Your task to perform on an android device: Open Google Chrome and click the shortcut for Amazon.com Image 0: 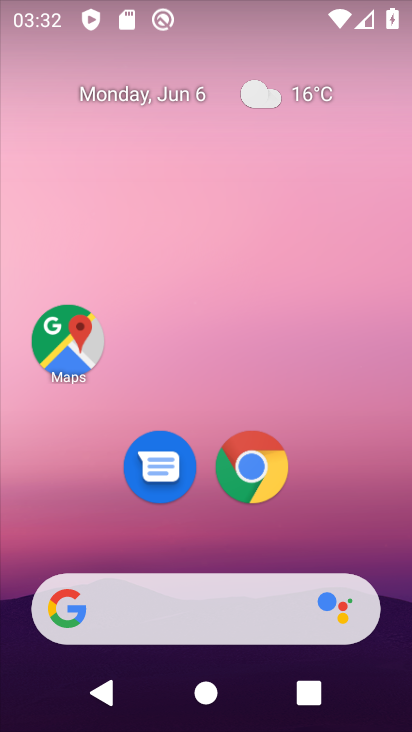
Step 0: press home button
Your task to perform on an android device: Open Google Chrome and click the shortcut for Amazon.com Image 1: 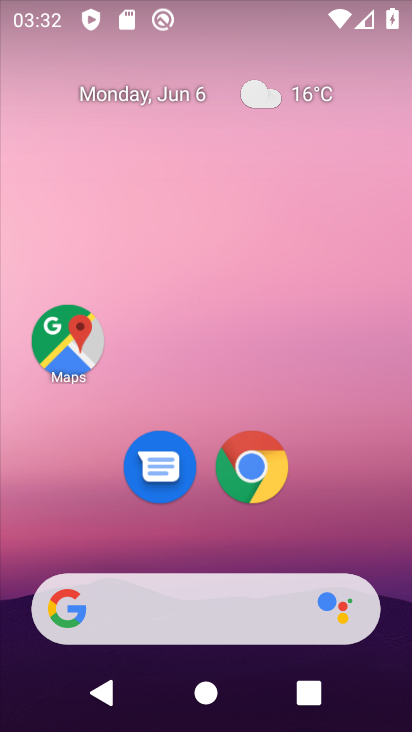
Step 1: click (248, 462)
Your task to perform on an android device: Open Google Chrome and click the shortcut for Amazon.com Image 2: 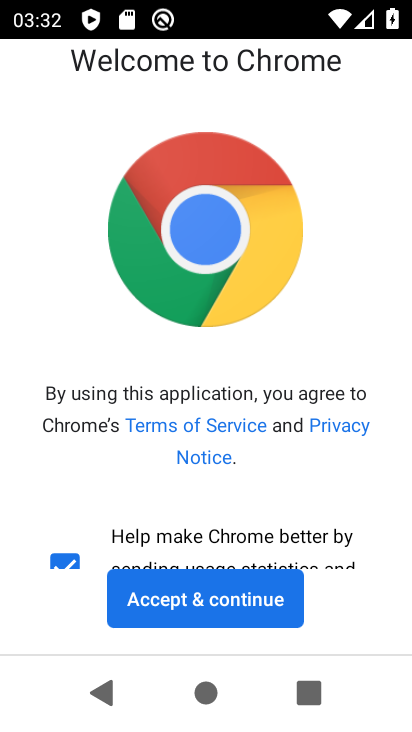
Step 2: click (194, 594)
Your task to perform on an android device: Open Google Chrome and click the shortcut for Amazon.com Image 3: 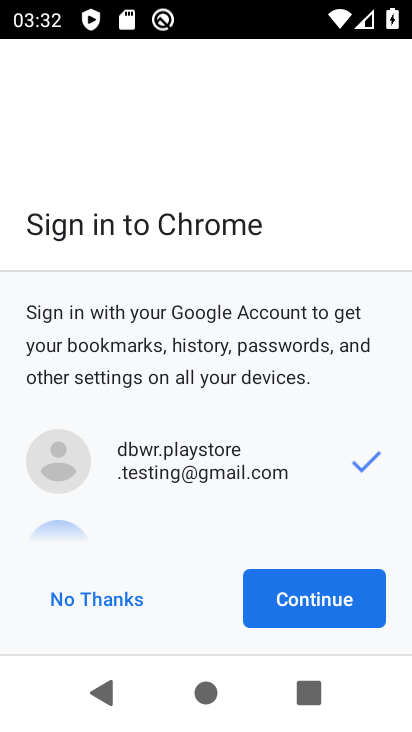
Step 3: click (320, 598)
Your task to perform on an android device: Open Google Chrome and click the shortcut for Amazon.com Image 4: 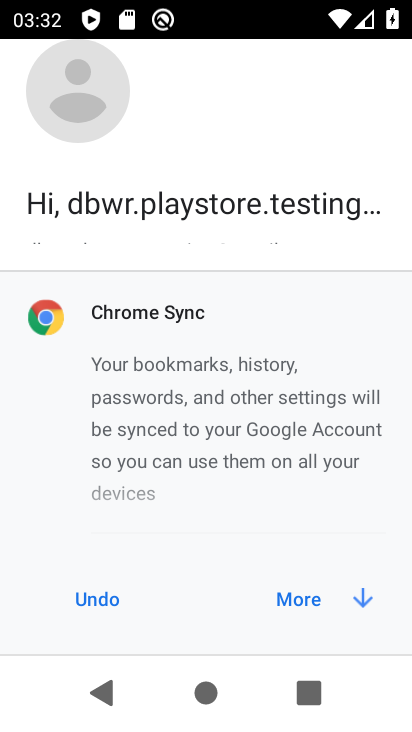
Step 4: click (320, 598)
Your task to perform on an android device: Open Google Chrome and click the shortcut for Amazon.com Image 5: 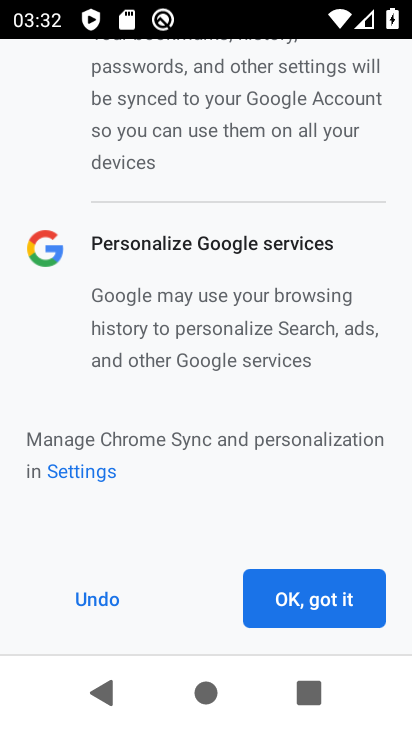
Step 5: click (320, 598)
Your task to perform on an android device: Open Google Chrome and click the shortcut for Amazon.com Image 6: 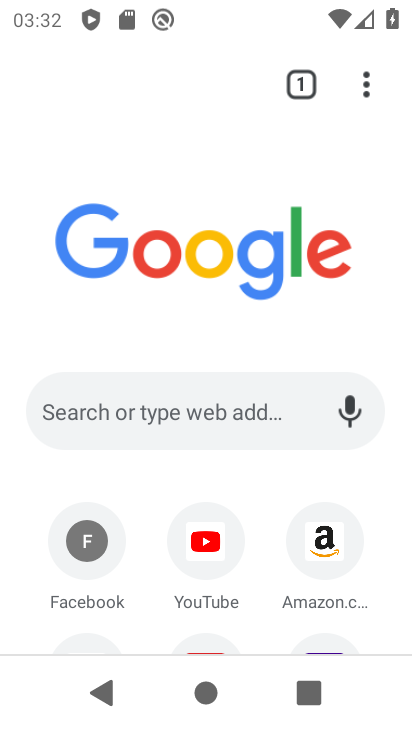
Step 6: click (319, 539)
Your task to perform on an android device: Open Google Chrome and click the shortcut for Amazon.com Image 7: 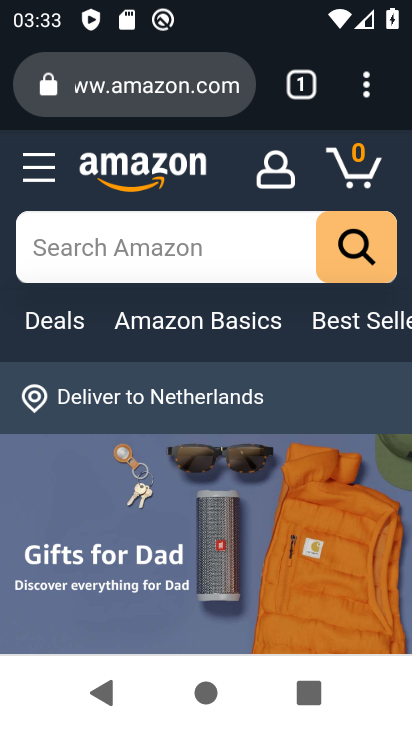
Step 7: task complete